Your task to perform on an android device: Open privacy settings Image 0: 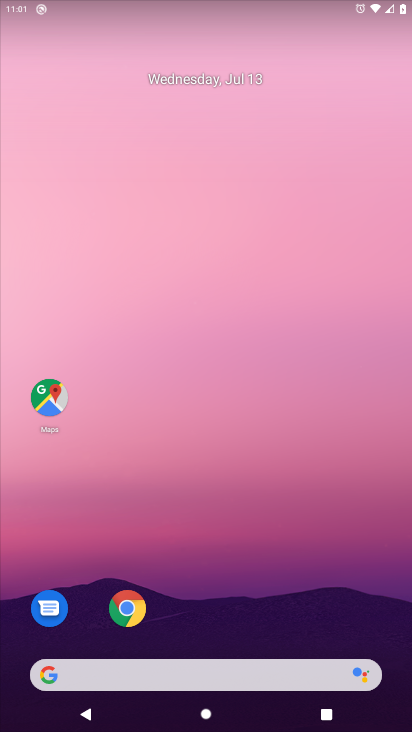
Step 0: drag from (138, 465) to (238, 34)
Your task to perform on an android device: Open privacy settings Image 1: 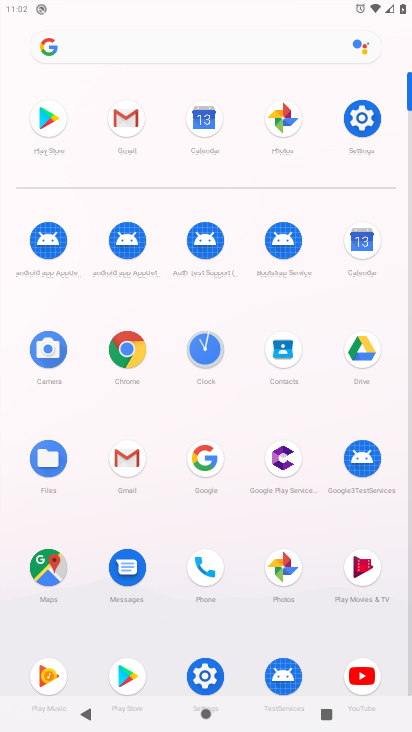
Step 1: click (213, 681)
Your task to perform on an android device: Open privacy settings Image 2: 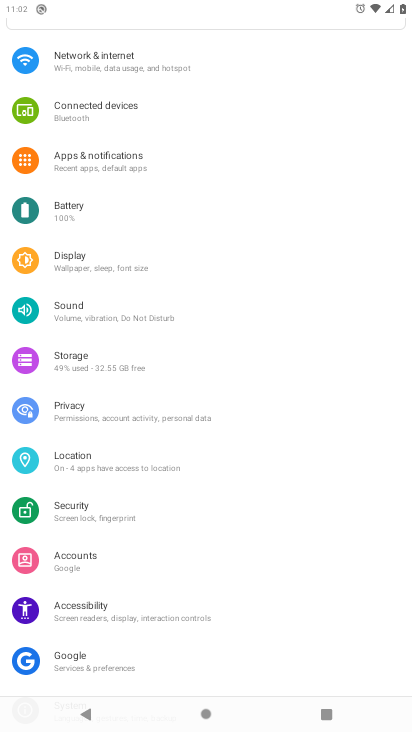
Step 2: click (113, 416)
Your task to perform on an android device: Open privacy settings Image 3: 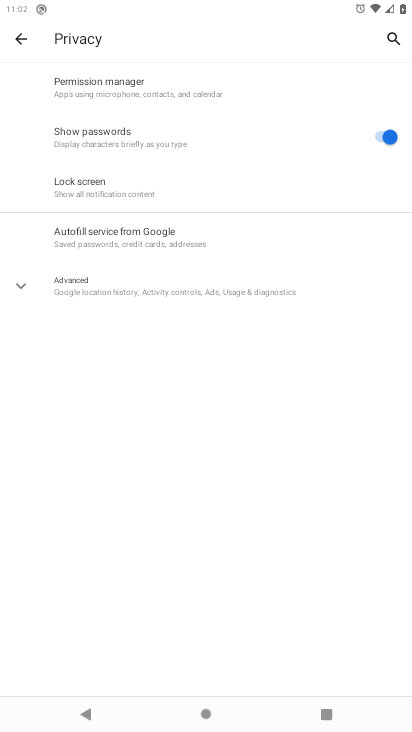
Step 3: task complete